Your task to perform on an android device: When is my next meeting? Image 0: 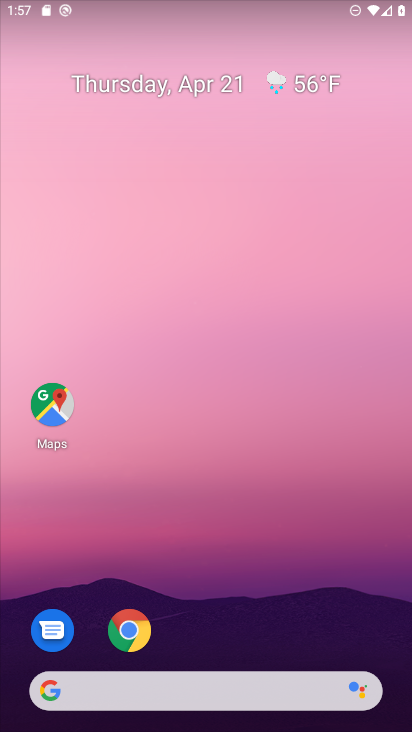
Step 0: drag from (198, 689) to (214, 130)
Your task to perform on an android device: When is my next meeting? Image 1: 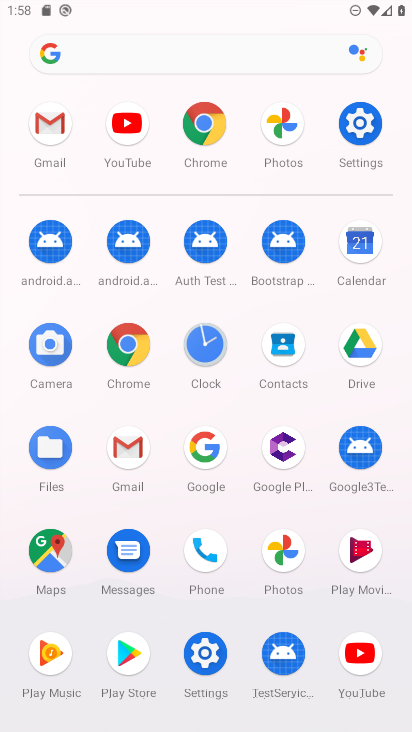
Step 1: click (372, 235)
Your task to perform on an android device: When is my next meeting? Image 2: 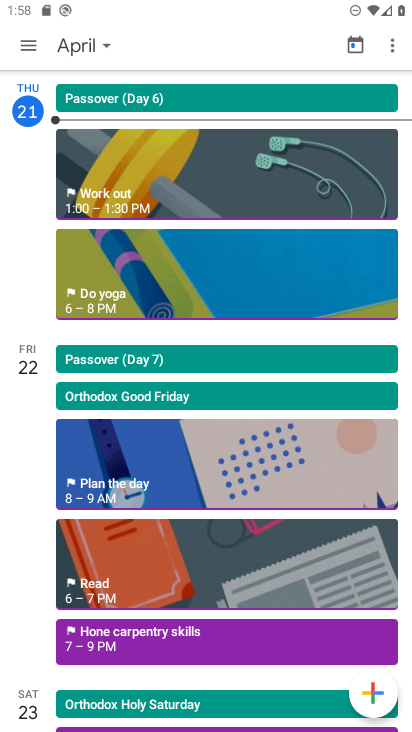
Step 2: click (28, 35)
Your task to perform on an android device: When is my next meeting? Image 3: 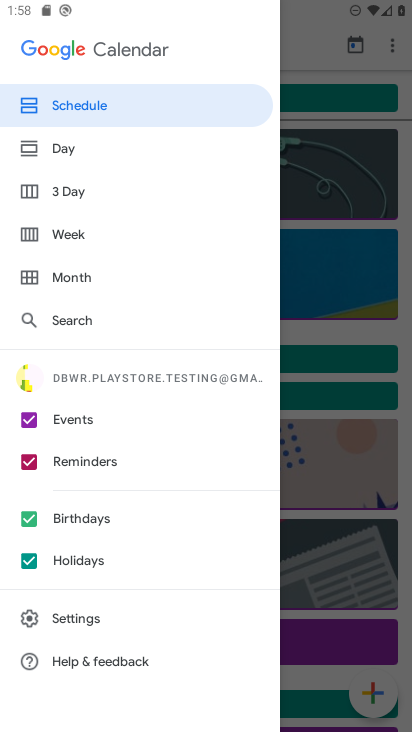
Step 3: click (75, 117)
Your task to perform on an android device: When is my next meeting? Image 4: 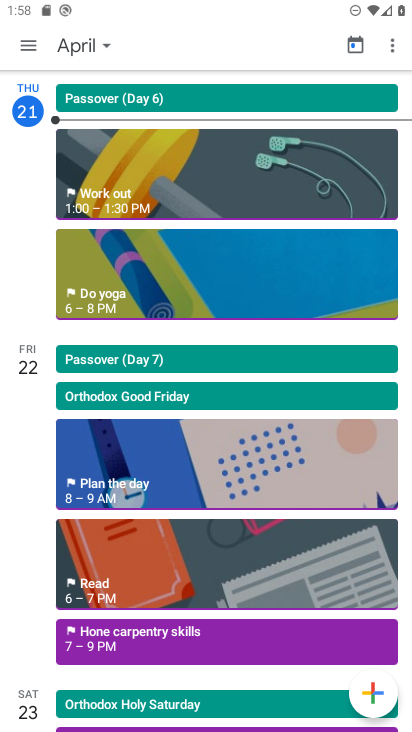
Step 4: task complete